Your task to perform on an android device: toggle javascript in the chrome app Image 0: 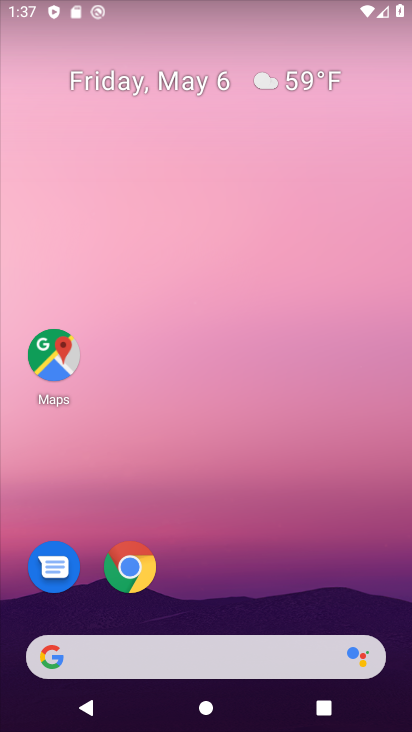
Step 0: click (130, 568)
Your task to perform on an android device: toggle javascript in the chrome app Image 1: 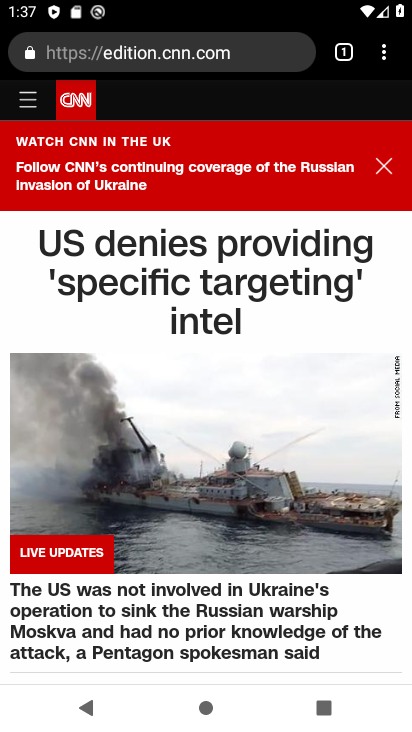
Step 1: click (388, 53)
Your task to perform on an android device: toggle javascript in the chrome app Image 2: 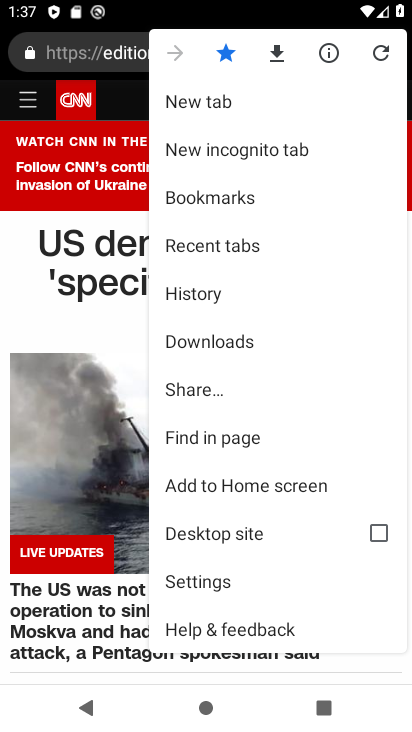
Step 2: click (208, 579)
Your task to perform on an android device: toggle javascript in the chrome app Image 3: 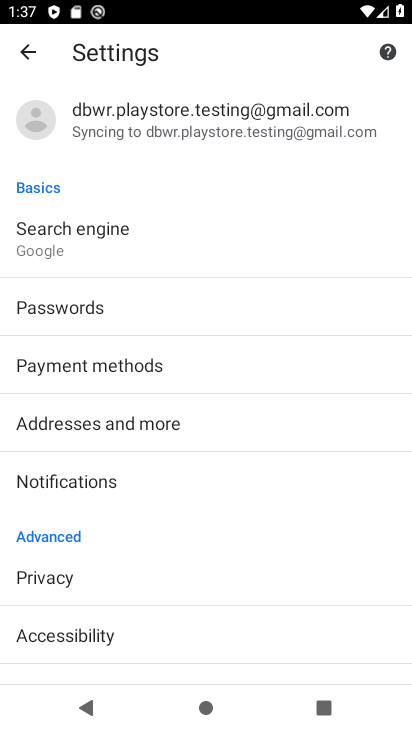
Step 3: drag from (124, 554) to (162, 442)
Your task to perform on an android device: toggle javascript in the chrome app Image 4: 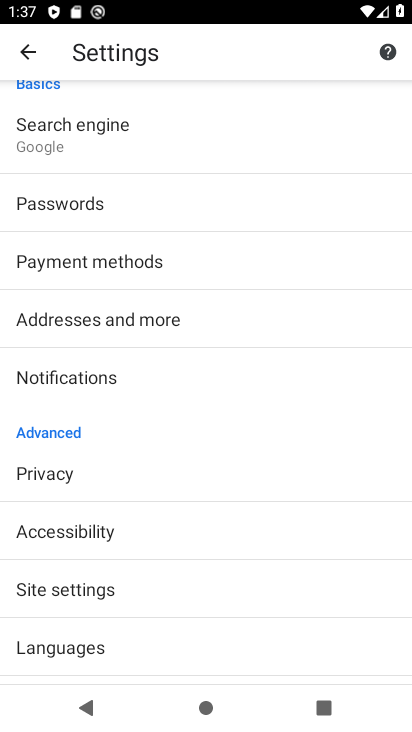
Step 4: drag from (117, 557) to (155, 482)
Your task to perform on an android device: toggle javascript in the chrome app Image 5: 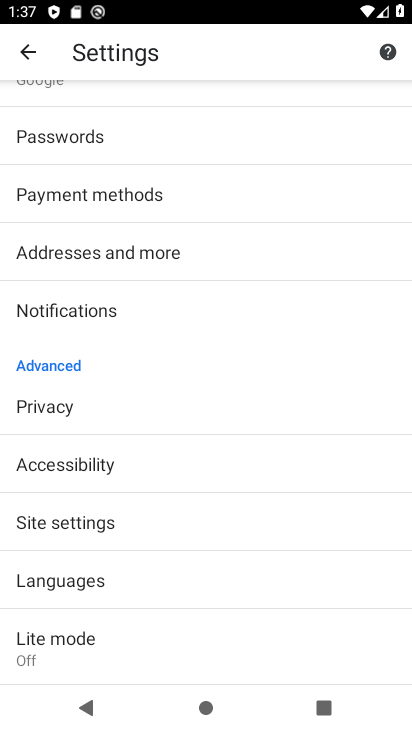
Step 5: click (87, 518)
Your task to perform on an android device: toggle javascript in the chrome app Image 6: 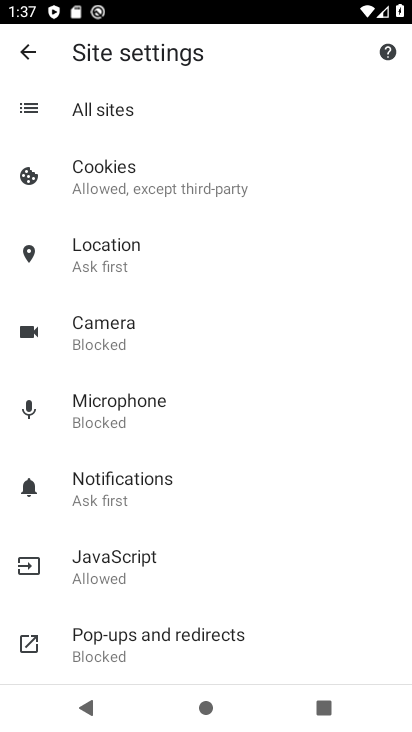
Step 6: click (100, 555)
Your task to perform on an android device: toggle javascript in the chrome app Image 7: 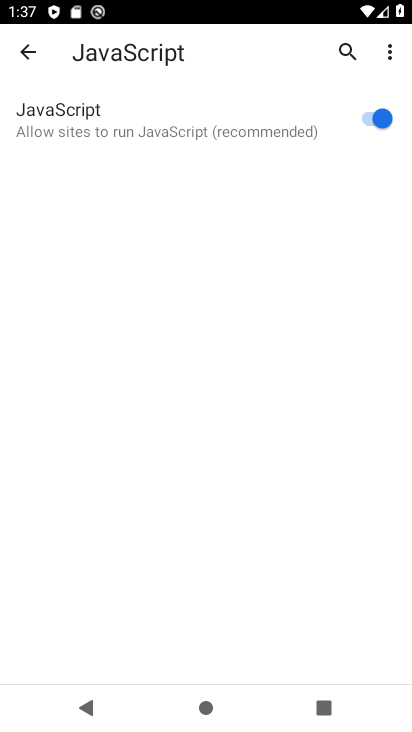
Step 7: click (378, 115)
Your task to perform on an android device: toggle javascript in the chrome app Image 8: 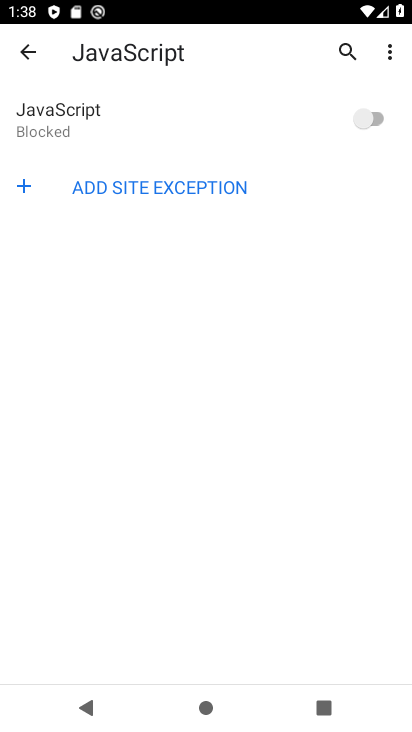
Step 8: task complete